Your task to perform on an android device: open app "Firefox Browser" (install if not already installed) Image 0: 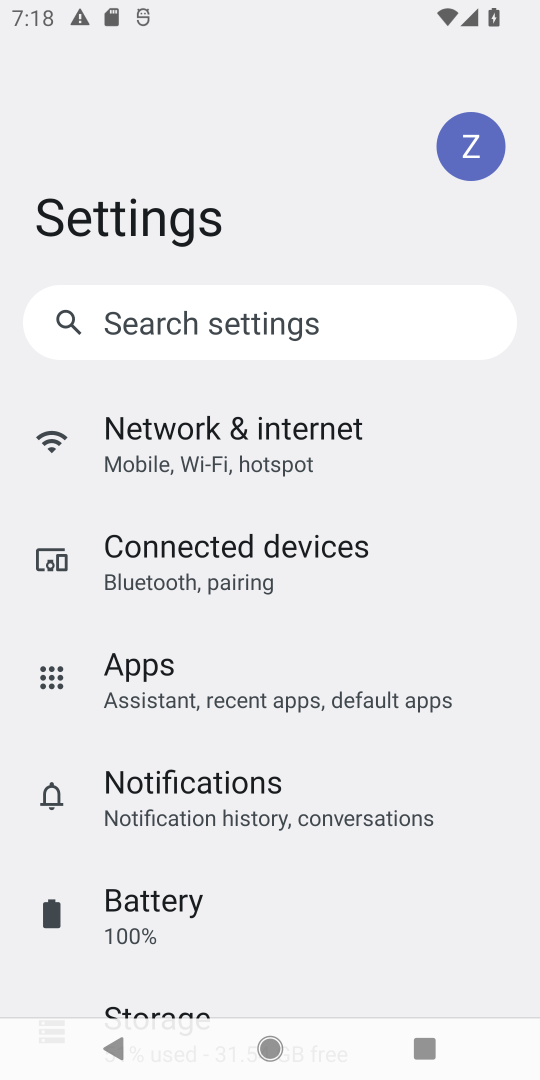
Step 0: press back button
Your task to perform on an android device: open app "Firefox Browser" (install if not already installed) Image 1: 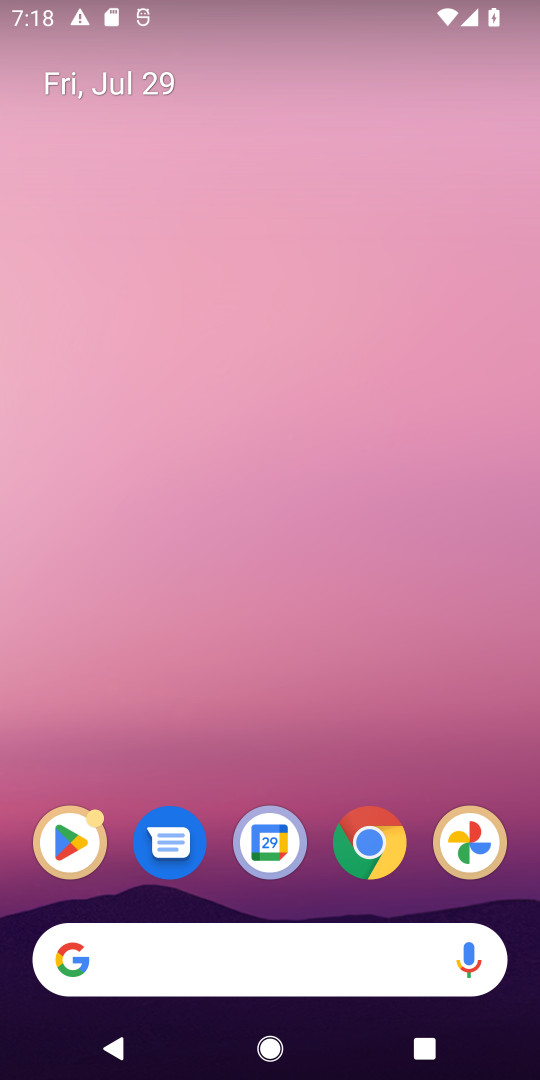
Step 1: drag from (266, 680) to (129, 3)
Your task to perform on an android device: open app "Firefox Browser" (install if not already installed) Image 2: 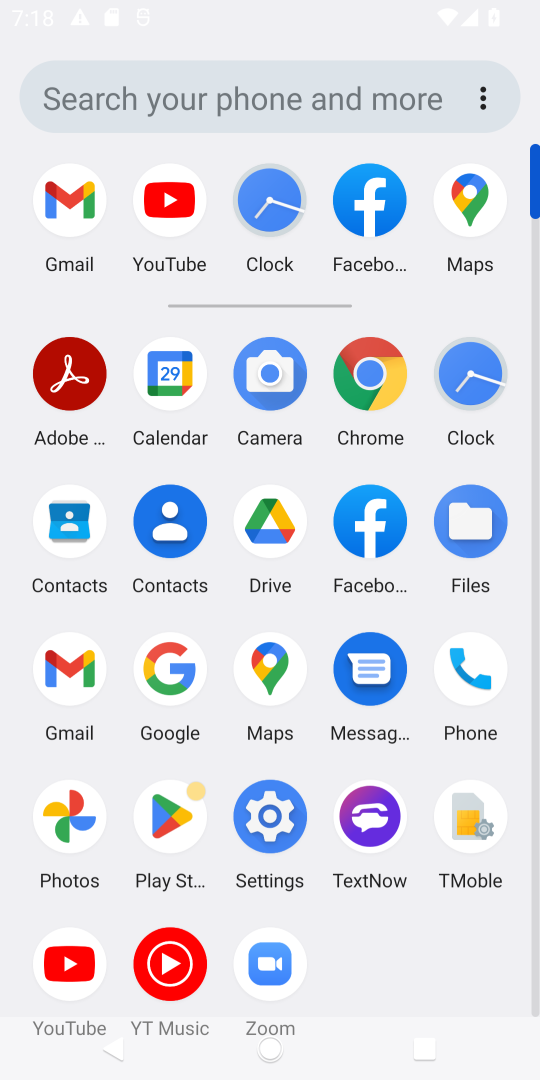
Step 2: drag from (235, 451) to (180, 52)
Your task to perform on an android device: open app "Firefox Browser" (install if not already installed) Image 3: 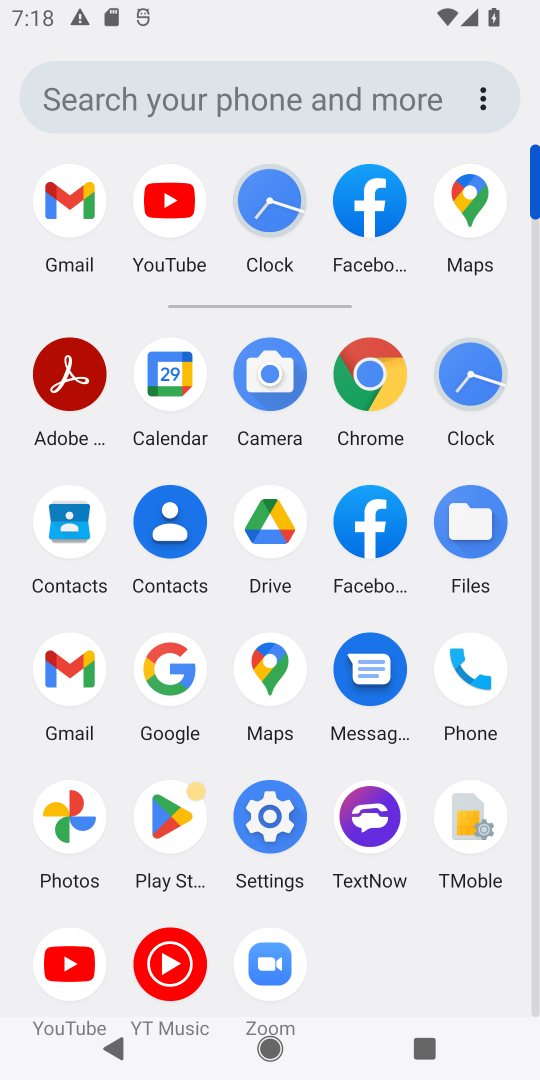
Step 3: click (177, 814)
Your task to perform on an android device: open app "Firefox Browser" (install if not already installed) Image 4: 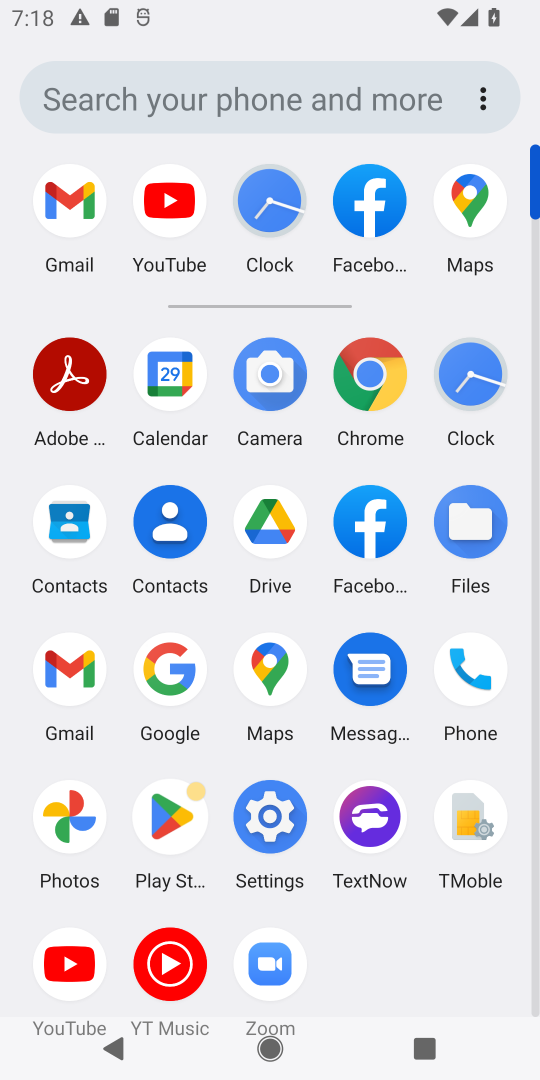
Step 4: click (177, 814)
Your task to perform on an android device: open app "Firefox Browser" (install if not already installed) Image 5: 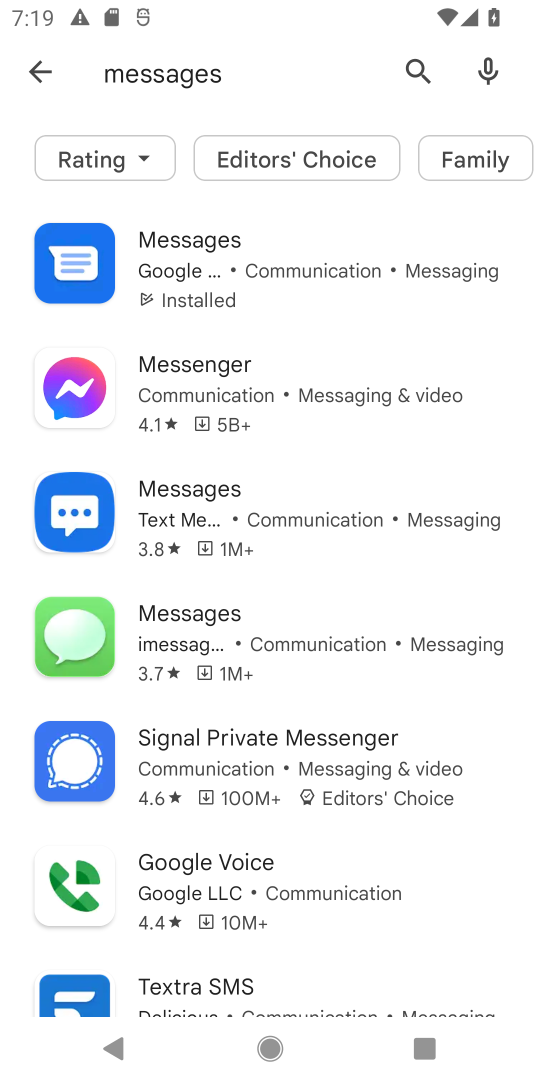
Step 5: click (46, 74)
Your task to perform on an android device: open app "Firefox Browser" (install if not already installed) Image 6: 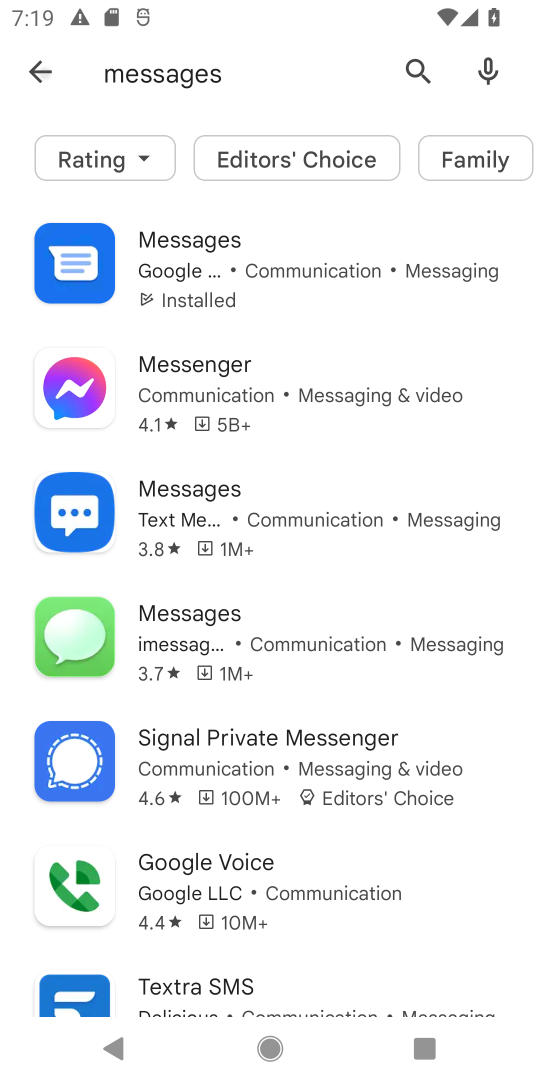
Step 6: click (45, 74)
Your task to perform on an android device: open app "Firefox Browser" (install if not already installed) Image 7: 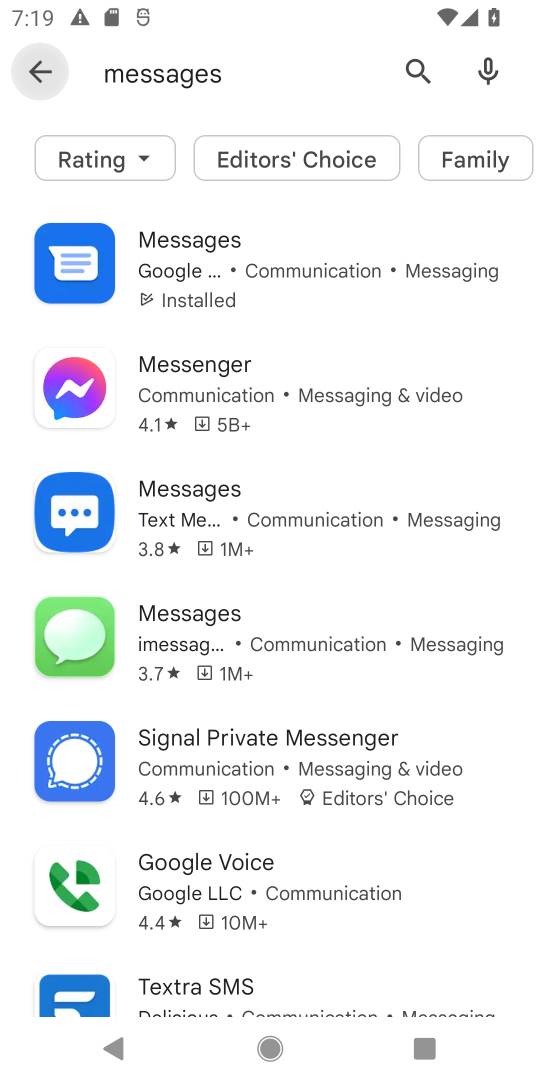
Step 7: click (45, 74)
Your task to perform on an android device: open app "Firefox Browser" (install if not already installed) Image 8: 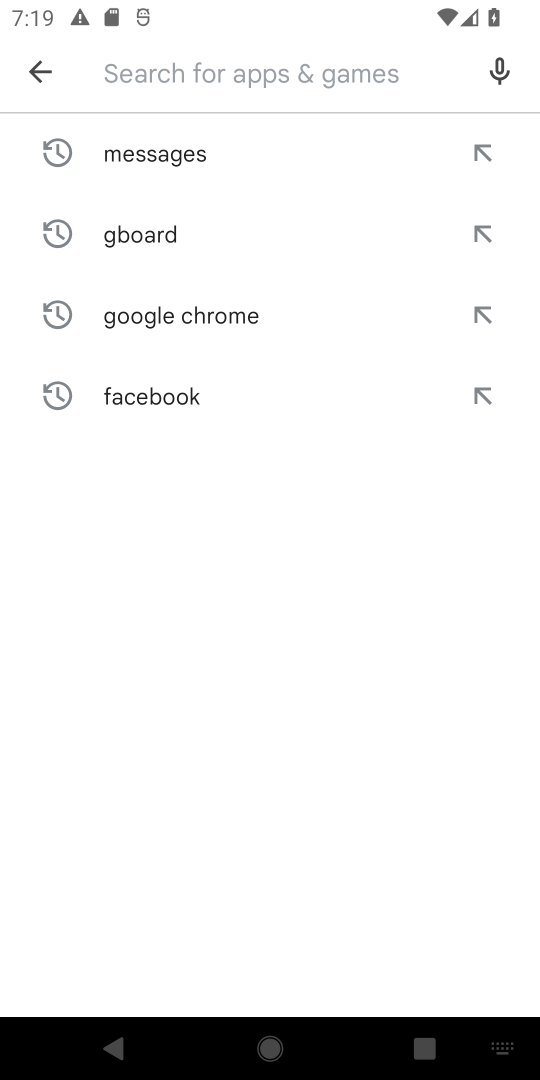
Step 8: type "firefox Browser"
Your task to perform on an android device: open app "Firefox Browser" (install if not already installed) Image 9: 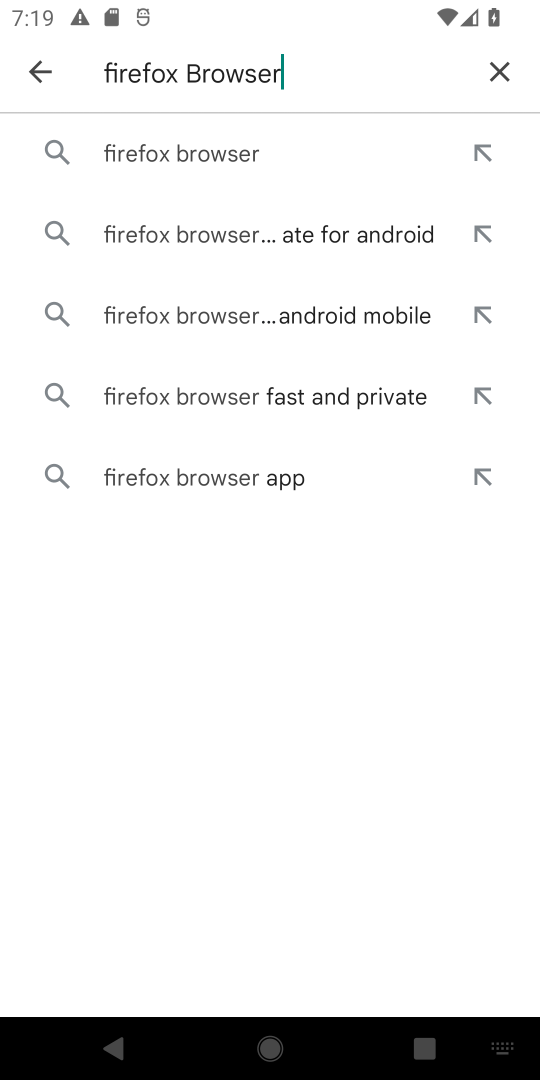
Step 9: click (189, 147)
Your task to perform on an android device: open app "Firefox Browser" (install if not already installed) Image 10: 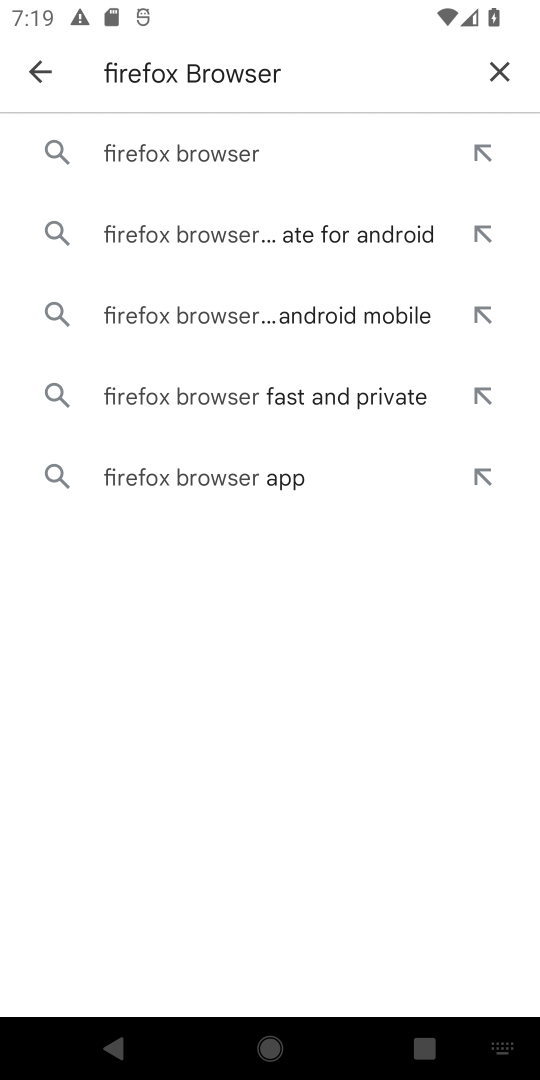
Step 10: click (189, 147)
Your task to perform on an android device: open app "Firefox Browser" (install if not already installed) Image 11: 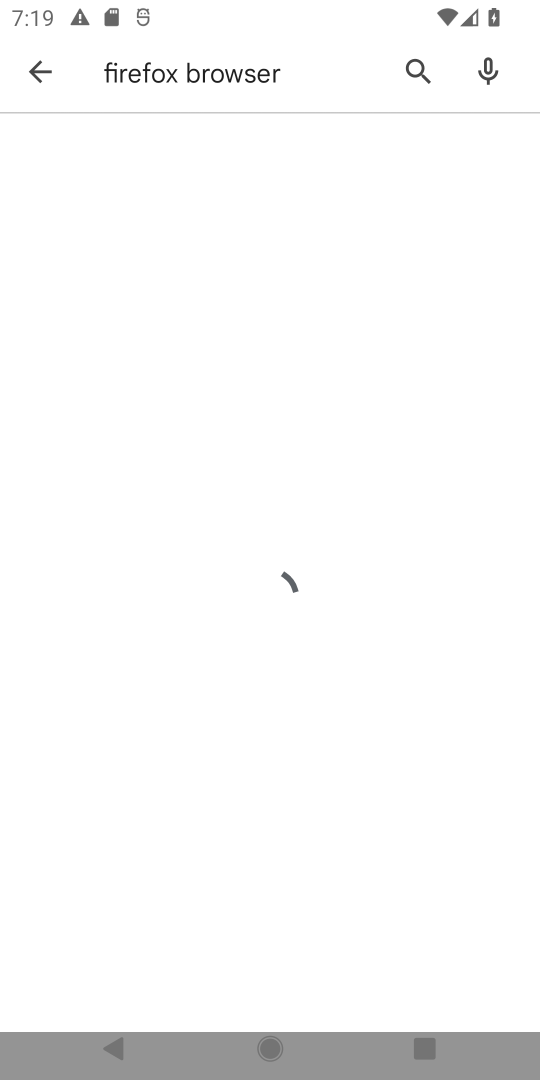
Step 11: click (191, 148)
Your task to perform on an android device: open app "Firefox Browser" (install if not already installed) Image 12: 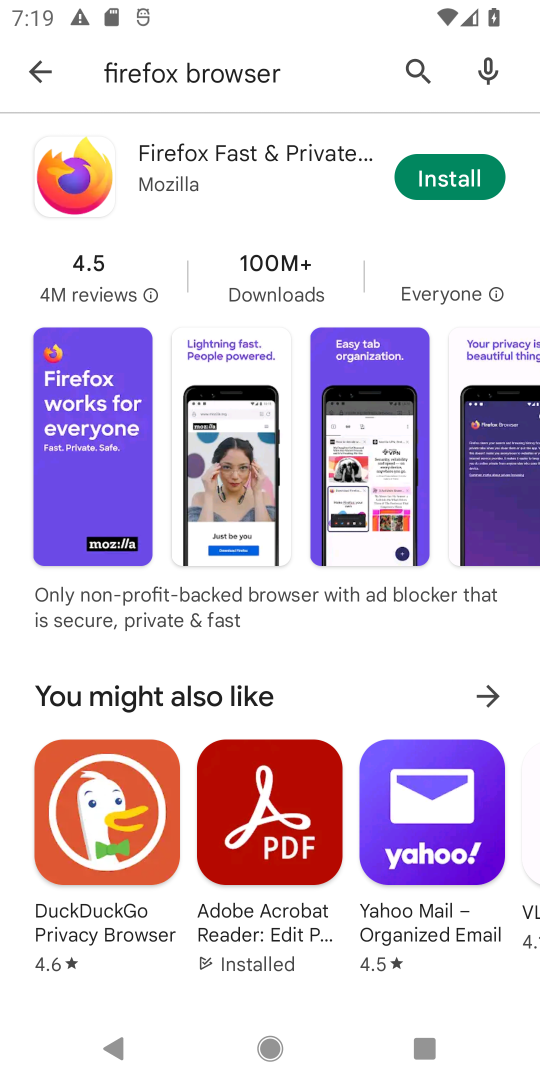
Step 12: click (460, 174)
Your task to perform on an android device: open app "Firefox Browser" (install if not already installed) Image 13: 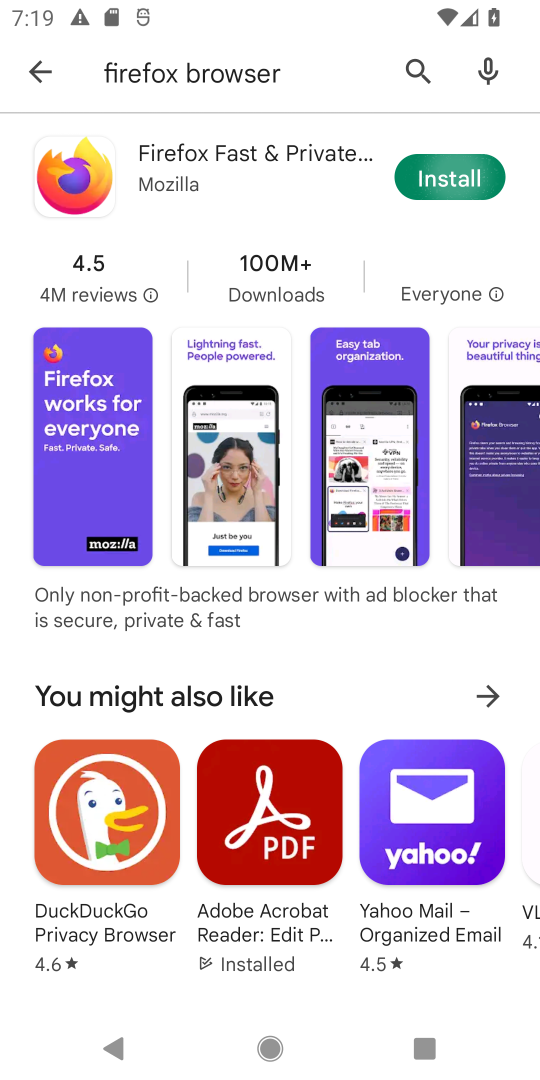
Step 13: click (463, 174)
Your task to perform on an android device: open app "Firefox Browser" (install if not already installed) Image 14: 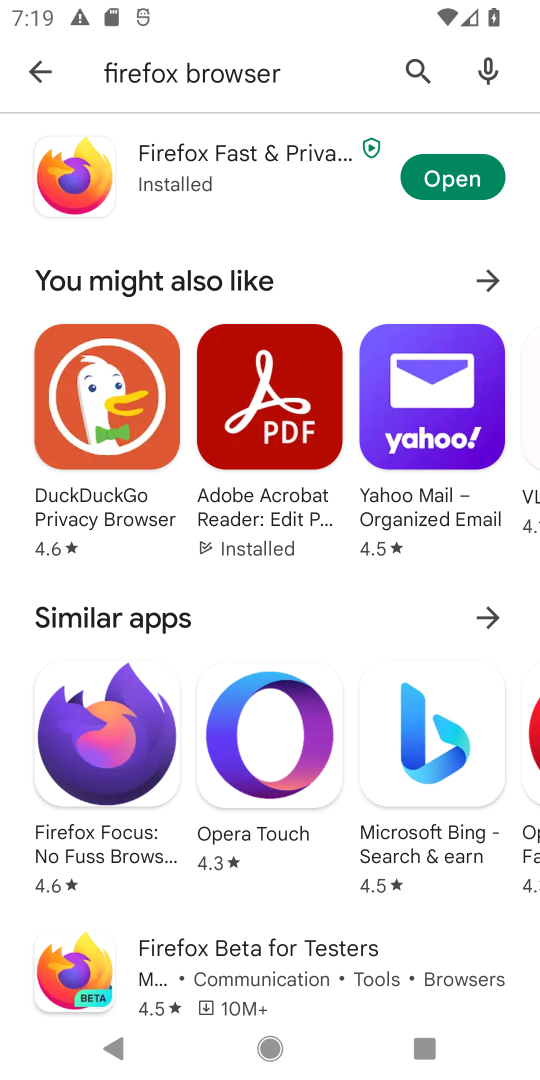
Step 14: click (448, 191)
Your task to perform on an android device: open app "Firefox Browser" (install if not already installed) Image 15: 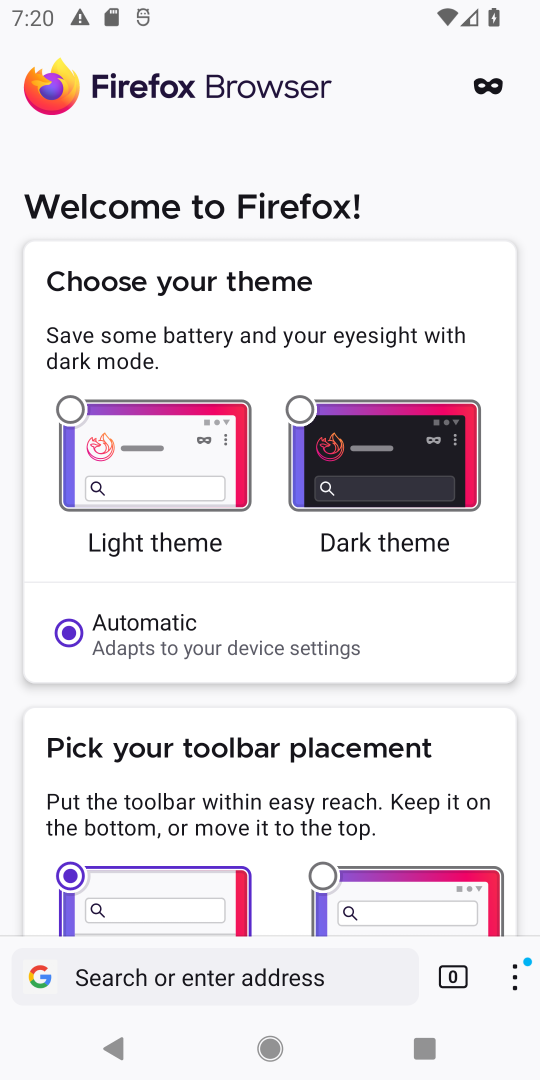
Step 15: task complete